Your task to perform on an android device: toggle sleep mode Image 0: 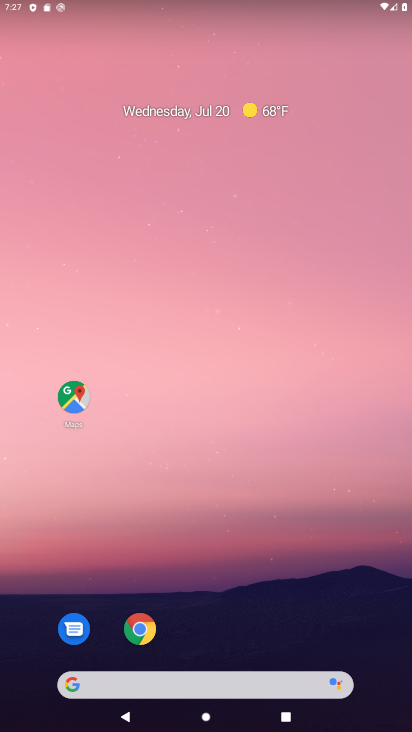
Step 0: drag from (330, 643) to (377, 83)
Your task to perform on an android device: toggle sleep mode Image 1: 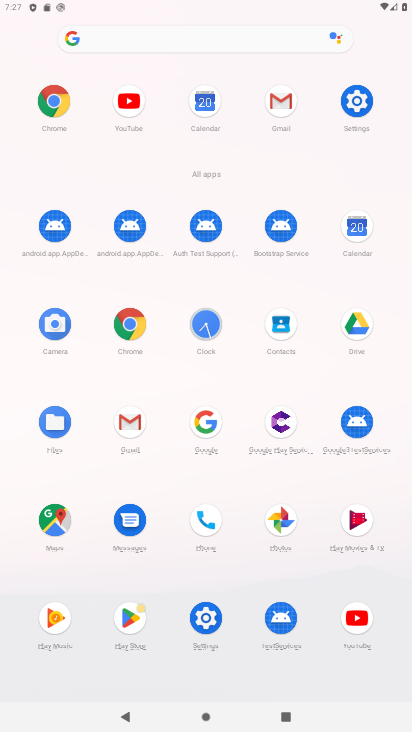
Step 1: click (353, 112)
Your task to perform on an android device: toggle sleep mode Image 2: 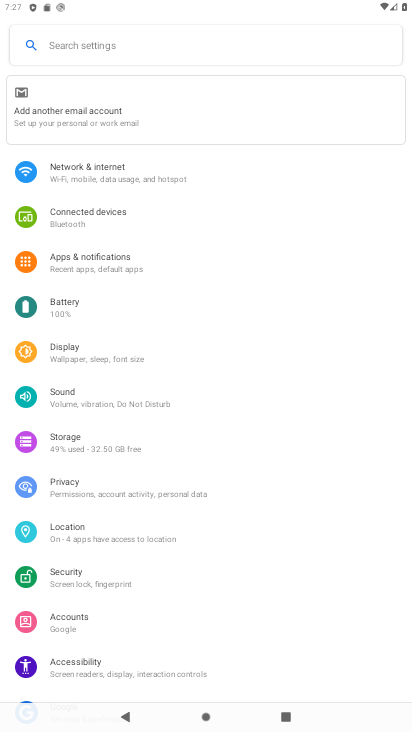
Step 2: drag from (345, 544) to (356, 453)
Your task to perform on an android device: toggle sleep mode Image 3: 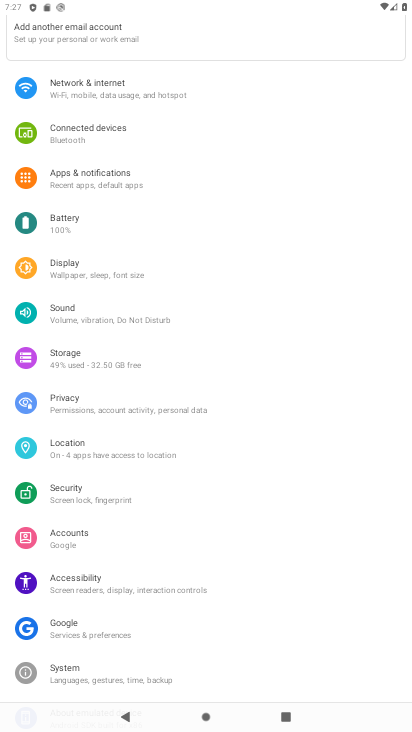
Step 3: drag from (344, 569) to (342, 477)
Your task to perform on an android device: toggle sleep mode Image 4: 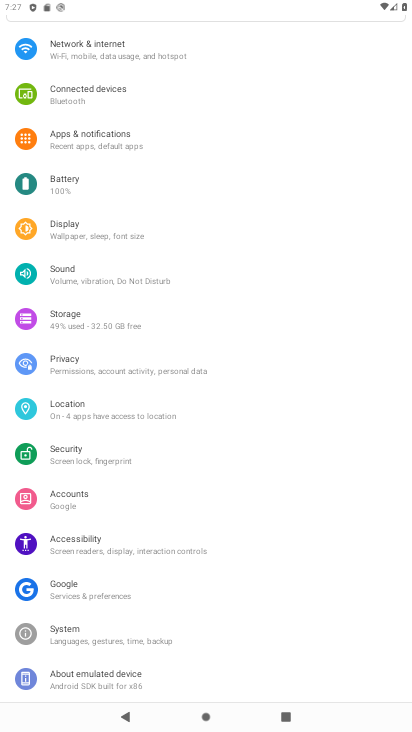
Step 4: drag from (331, 422) to (324, 476)
Your task to perform on an android device: toggle sleep mode Image 5: 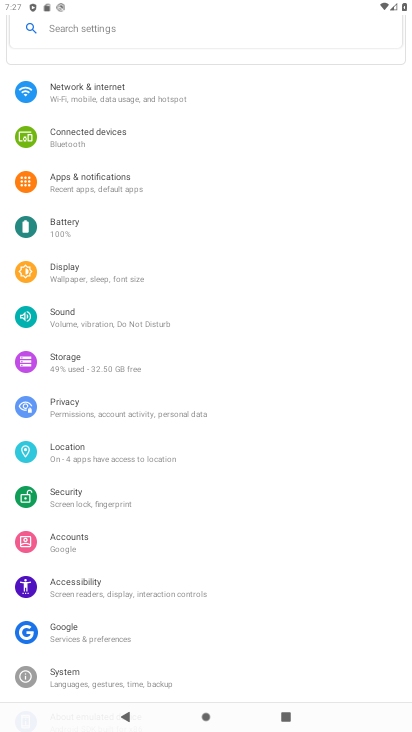
Step 5: drag from (324, 393) to (327, 451)
Your task to perform on an android device: toggle sleep mode Image 6: 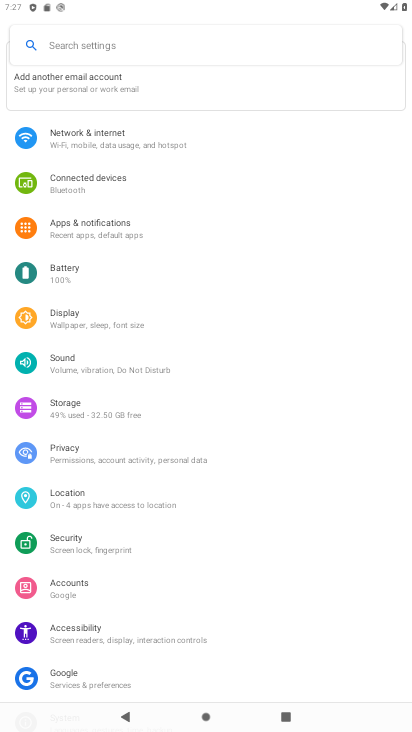
Step 6: drag from (332, 377) to (333, 444)
Your task to perform on an android device: toggle sleep mode Image 7: 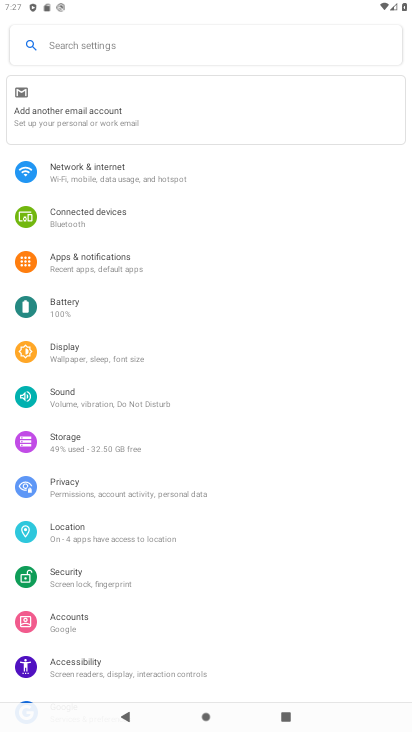
Step 7: drag from (329, 351) to (331, 448)
Your task to perform on an android device: toggle sleep mode Image 8: 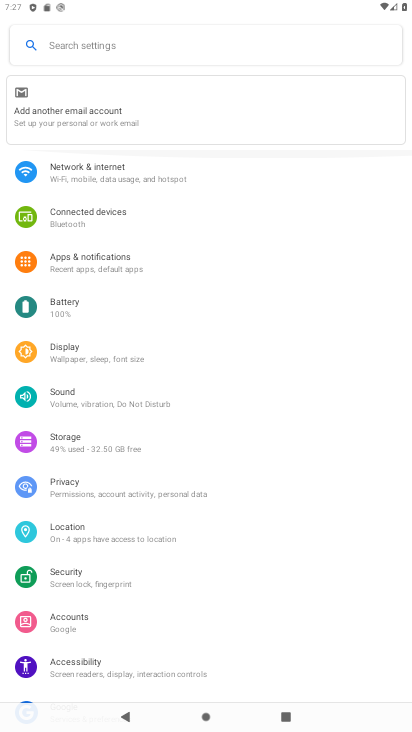
Step 8: click (205, 355)
Your task to perform on an android device: toggle sleep mode Image 9: 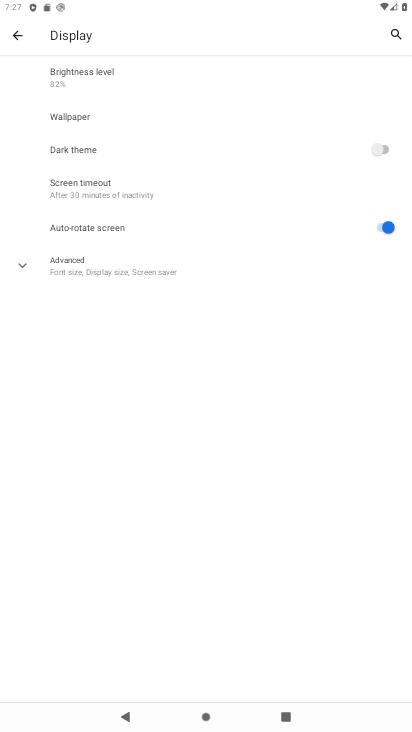
Step 9: click (268, 268)
Your task to perform on an android device: toggle sleep mode Image 10: 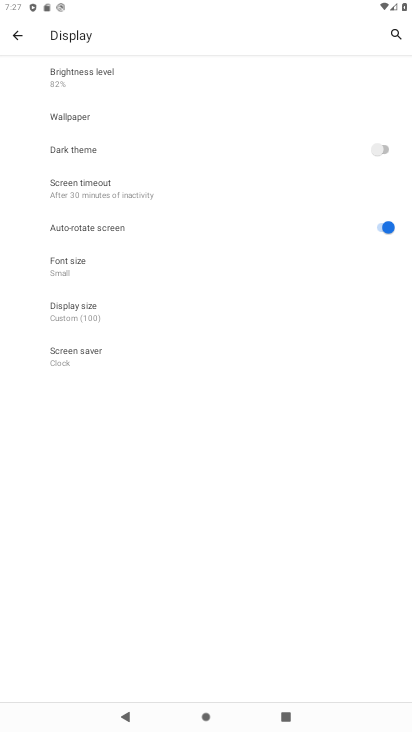
Step 10: task complete